Your task to perform on an android device: turn off airplane mode Image 0: 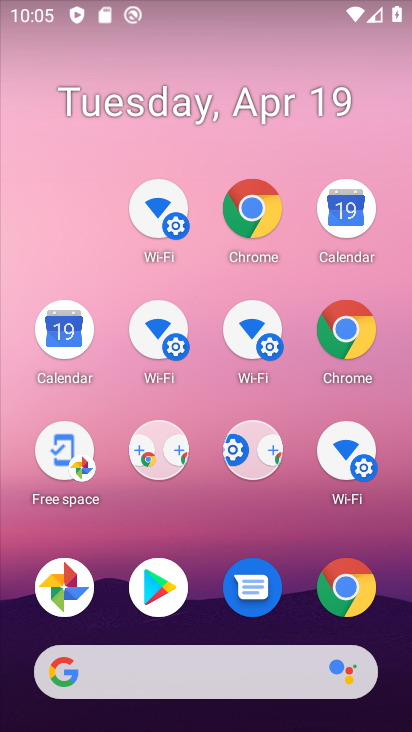
Step 0: drag from (321, 380) to (306, 7)
Your task to perform on an android device: turn off airplane mode Image 1: 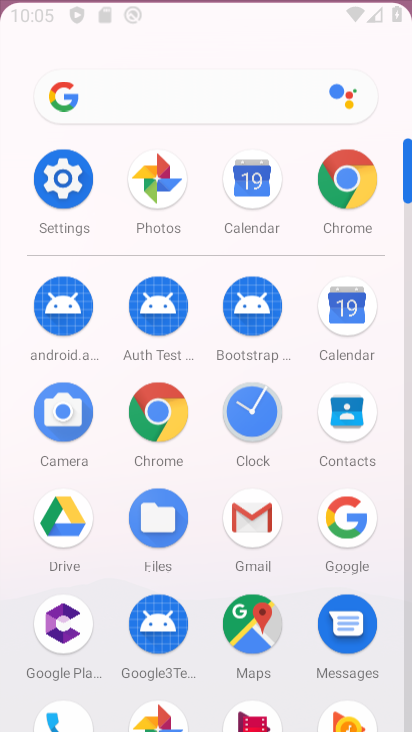
Step 1: drag from (263, 349) to (195, 49)
Your task to perform on an android device: turn off airplane mode Image 2: 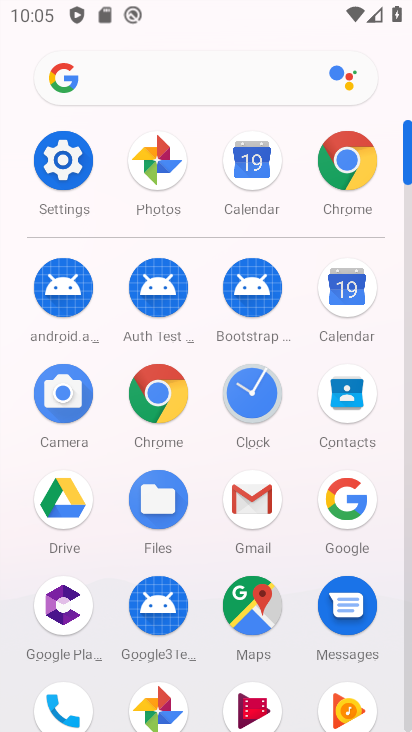
Step 2: click (57, 160)
Your task to perform on an android device: turn off airplane mode Image 3: 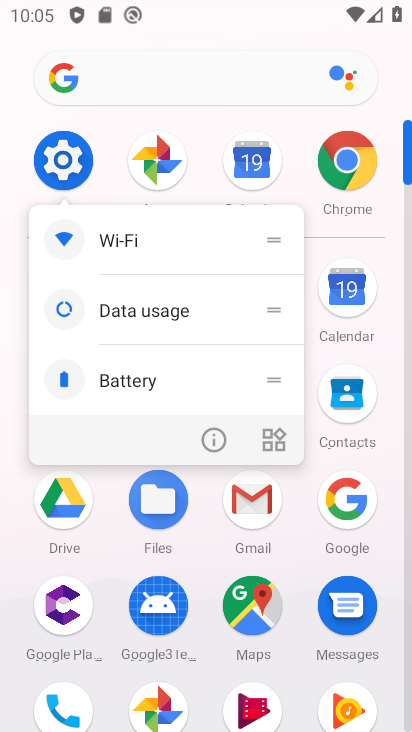
Step 3: click (57, 160)
Your task to perform on an android device: turn off airplane mode Image 4: 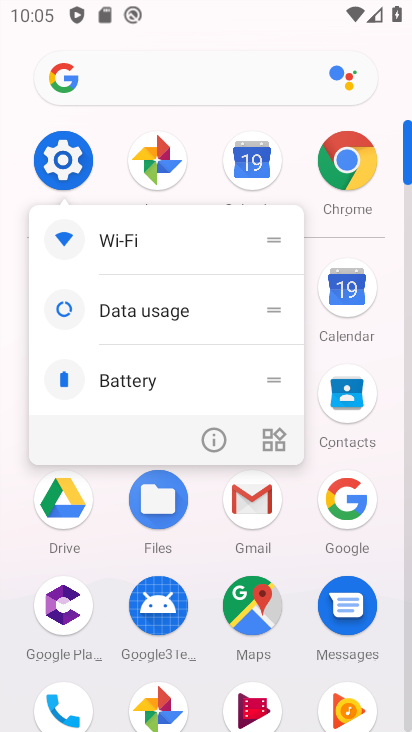
Step 4: click (57, 160)
Your task to perform on an android device: turn off airplane mode Image 5: 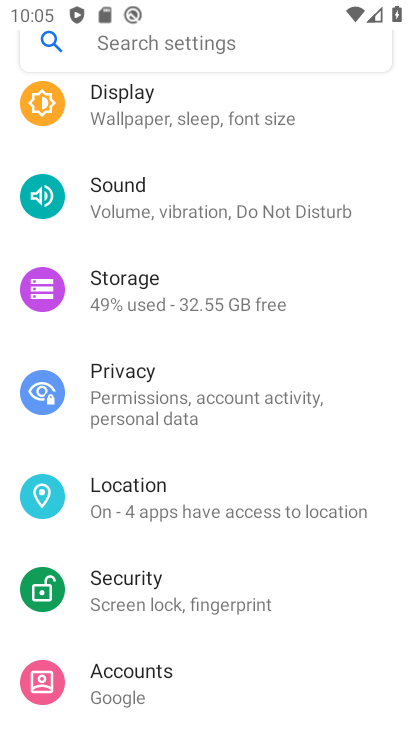
Step 5: drag from (125, 251) to (4, 564)
Your task to perform on an android device: turn off airplane mode Image 6: 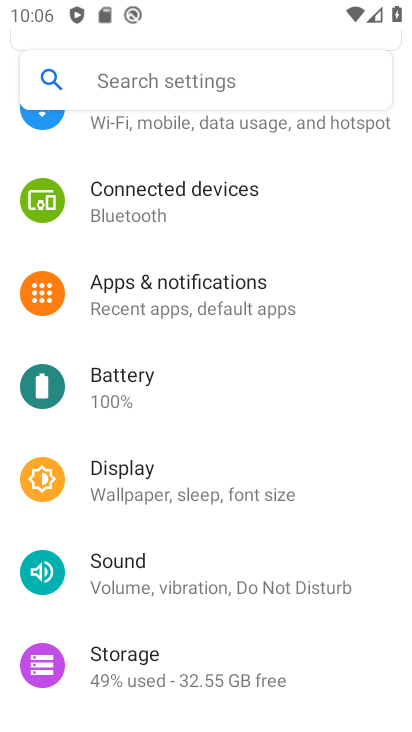
Step 6: drag from (223, 260) to (242, 573)
Your task to perform on an android device: turn off airplane mode Image 7: 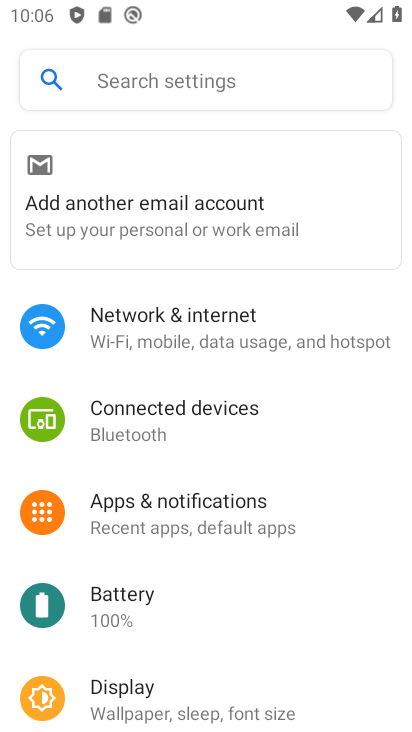
Step 7: click (199, 325)
Your task to perform on an android device: turn off airplane mode Image 8: 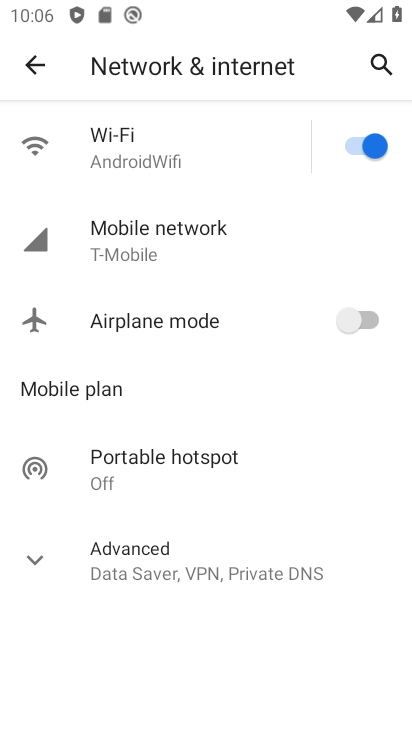
Step 8: task complete